Your task to perform on an android device: Open Chrome and go to settings Image 0: 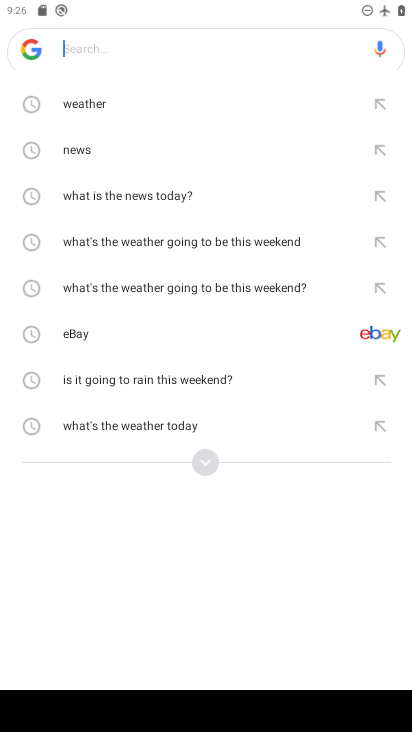
Step 0: press home button
Your task to perform on an android device: Open Chrome and go to settings Image 1: 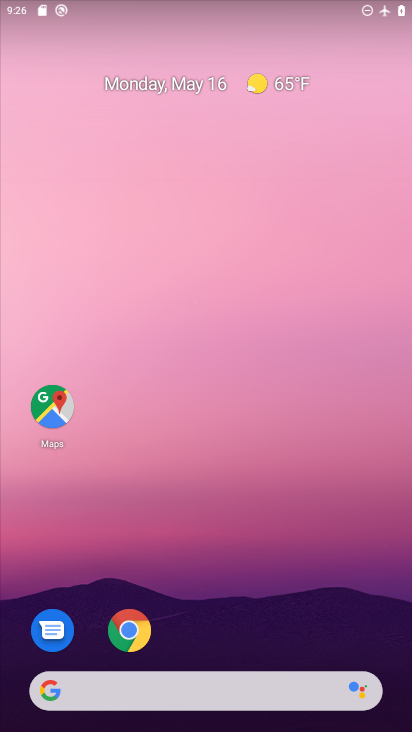
Step 1: click (125, 627)
Your task to perform on an android device: Open Chrome and go to settings Image 2: 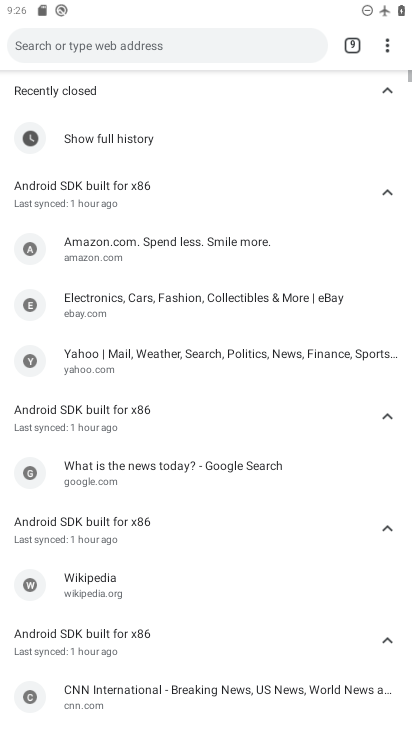
Step 2: task complete